Your task to perform on an android device: Show me the top rated dinnerware on Crate & Barrel Image 0: 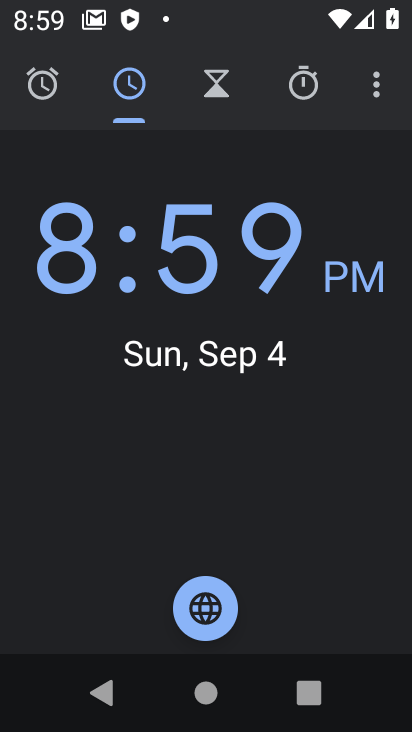
Step 0: press home button
Your task to perform on an android device: Show me the top rated dinnerware on Crate & Barrel Image 1: 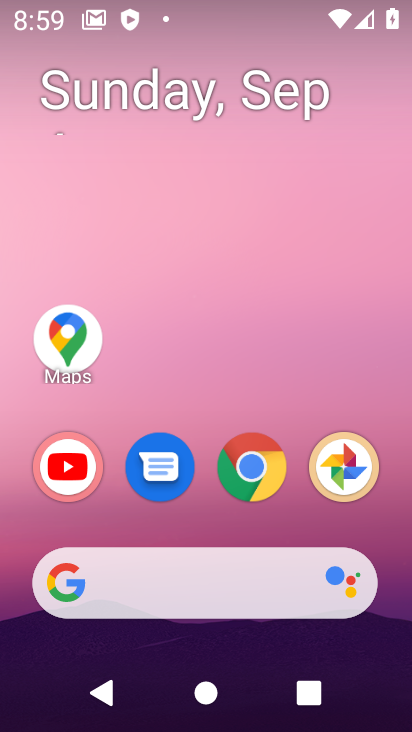
Step 1: click (237, 457)
Your task to perform on an android device: Show me the top rated dinnerware on Crate & Barrel Image 2: 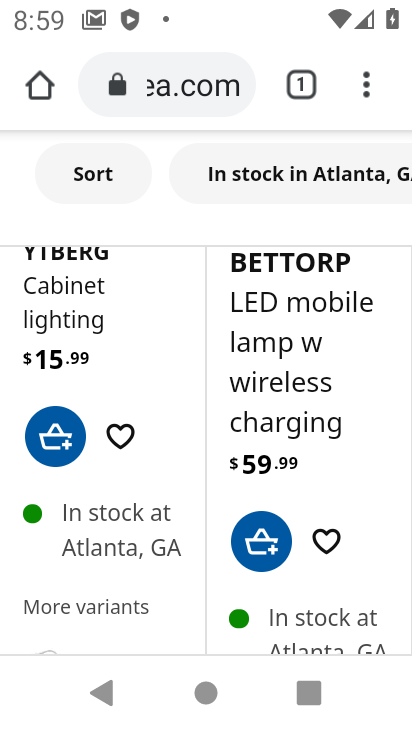
Step 2: click (188, 66)
Your task to perform on an android device: Show me the top rated dinnerware on Crate & Barrel Image 3: 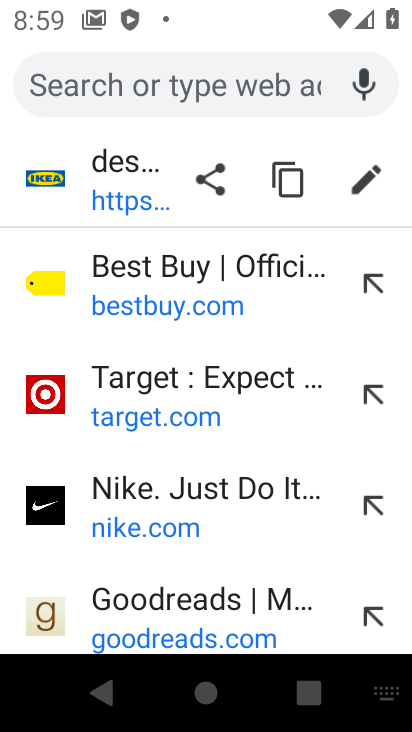
Step 3: type "crate & barrel"
Your task to perform on an android device: Show me the top rated dinnerware on Crate & Barrel Image 4: 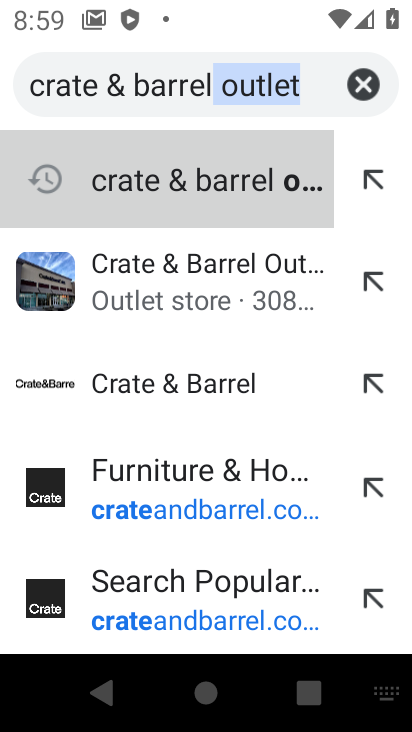
Step 4: type ""
Your task to perform on an android device: Show me the top rated dinnerware on Crate & Barrel Image 5: 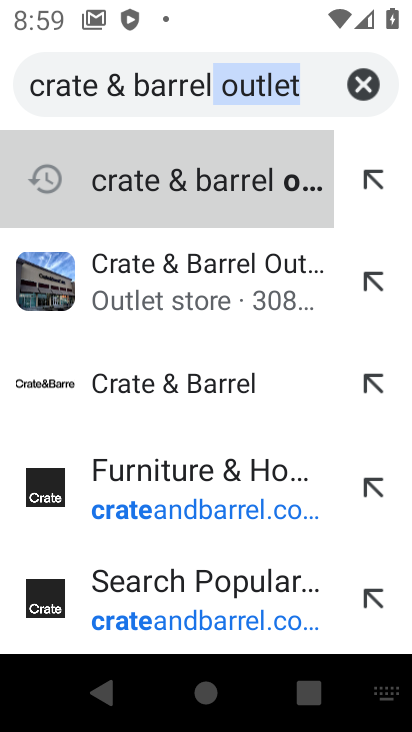
Step 5: click (183, 485)
Your task to perform on an android device: Show me the top rated dinnerware on Crate & Barrel Image 6: 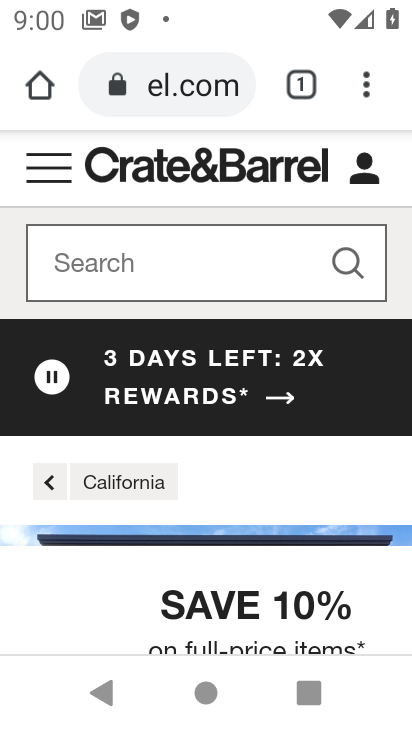
Step 6: click (150, 252)
Your task to perform on an android device: Show me the top rated dinnerware on Crate & Barrel Image 7: 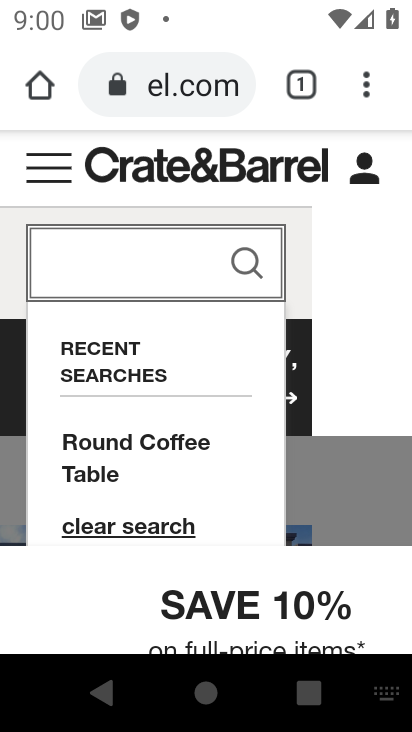
Step 7: type "dinnerware"
Your task to perform on an android device: Show me the top rated dinnerware on Crate & Barrel Image 8: 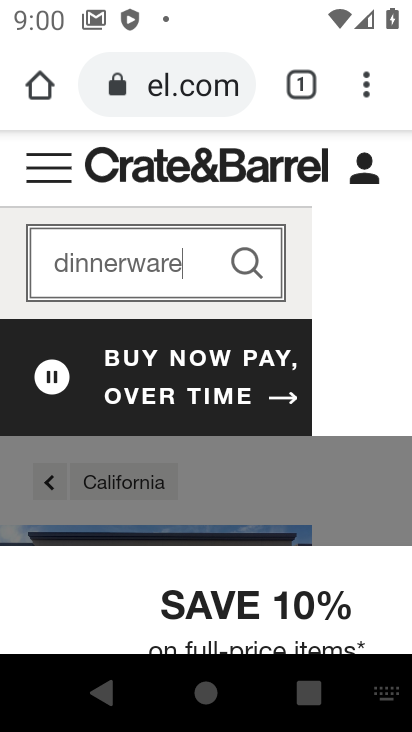
Step 8: type ""
Your task to perform on an android device: Show me the top rated dinnerware on Crate & Barrel Image 9: 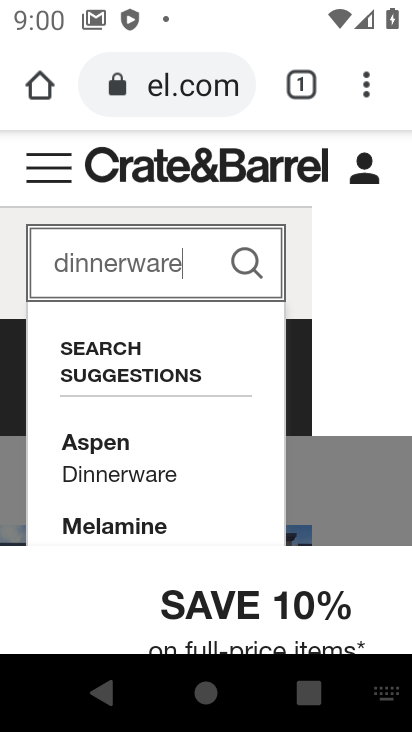
Step 9: click (126, 470)
Your task to perform on an android device: Show me the top rated dinnerware on Crate & Barrel Image 10: 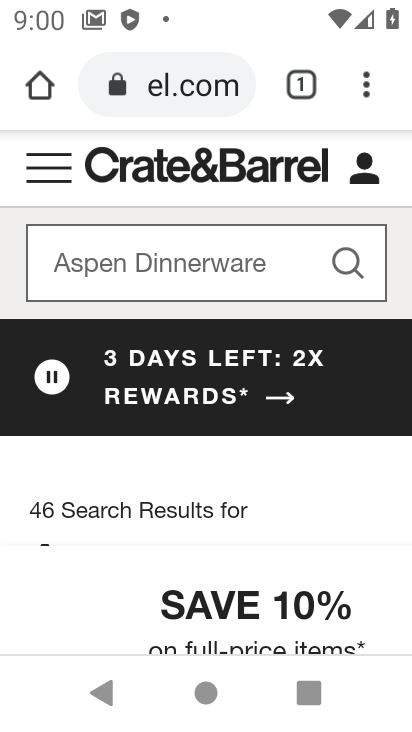
Step 10: drag from (369, 548) to (390, 283)
Your task to perform on an android device: Show me the top rated dinnerware on Crate & Barrel Image 11: 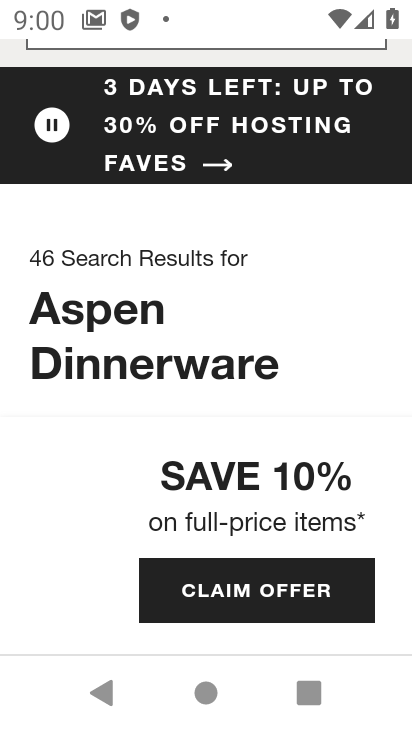
Step 11: drag from (372, 480) to (374, 75)
Your task to perform on an android device: Show me the top rated dinnerware on Crate & Barrel Image 12: 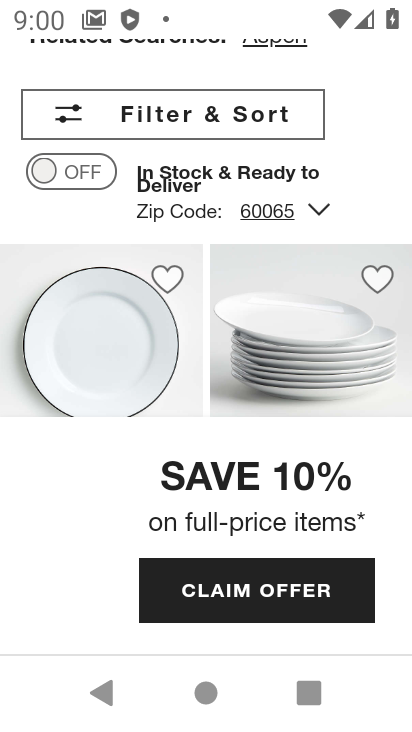
Step 12: drag from (324, 334) to (330, 176)
Your task to perform on an android device: Show me the top rated dinnerware on Crate & Barrel Image 13: 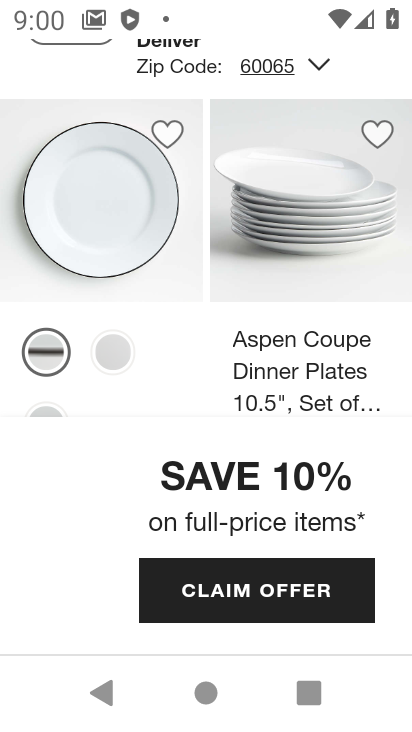
Step 13: drag from (235, 278) to (252, 38)
Your task to perform on an android device: Show me the top rated dinnerware on Crate & Barrel Image 14: 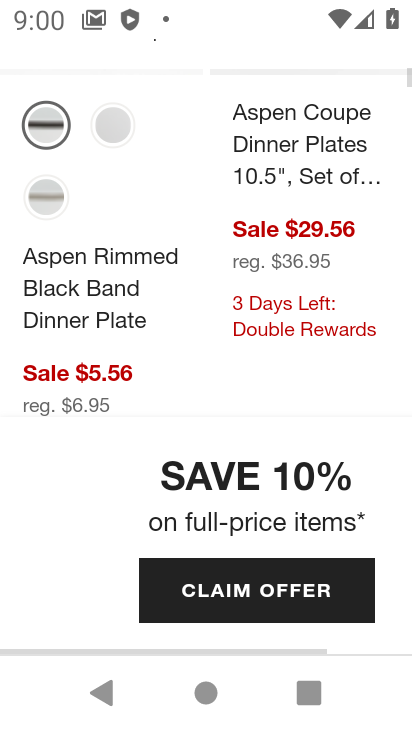
Step 14: drag from (351, 220) to (352, 68)
Your task to perform on an android device: Show me the top rated dinnerware on Crate & Barrel Image 15: 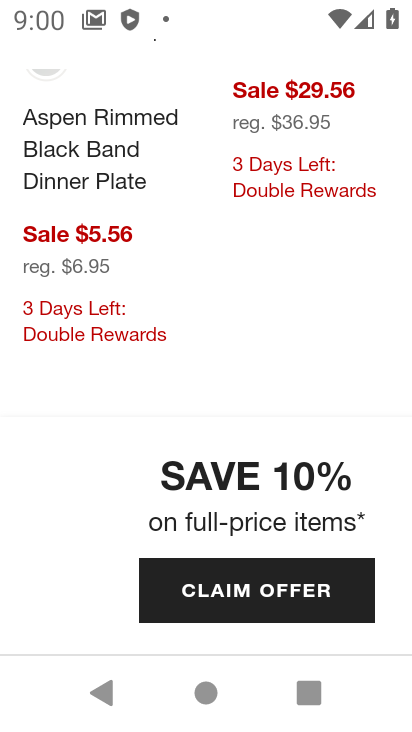
Step 15: drag from (284, 260) to (295, 87)
Your task to perform on an android device: Show me the top rated dinnerware on Crate & Barrel Image 16: 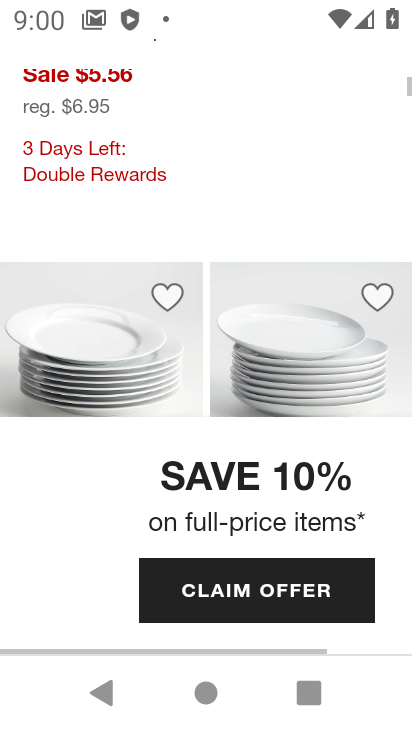
Step 16: drag from (281, 190) to (293, 40)
Your task to perform on an android device: Show me the top rated dinnerware on Crate & Barrel Image 17: 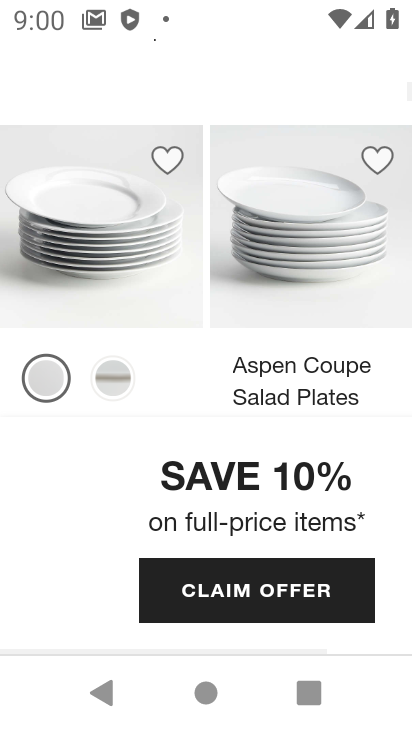
Step 17: drag from (264, 171) to (264, 89)
Your task to perform on an android device: Show me the top rated dinnerware on Crate & Barrel Image 18: 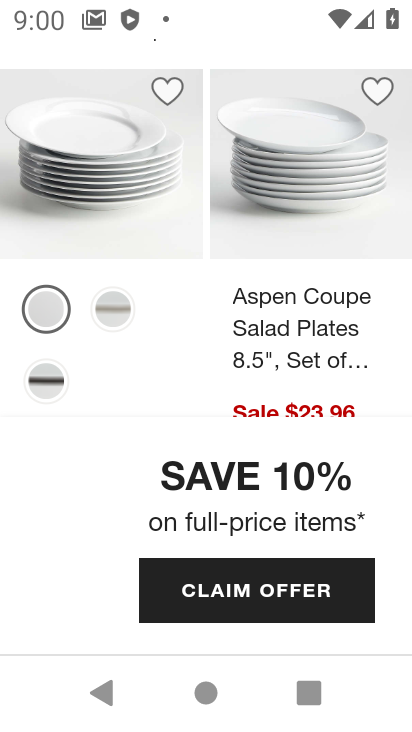
Step 18: drag from (261, 281) to (254, 110)
Your task to perform on an android device: Show me the top rated dinnerware on Crate & Barrel Image 19: 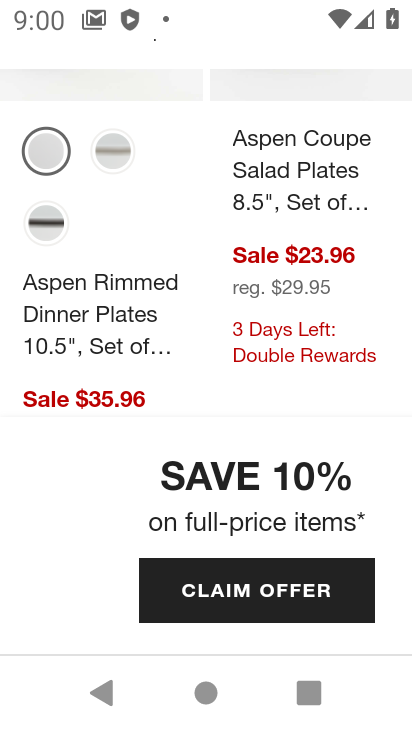
Step 19: drag from (326, 357) to (339, 56)
Your task to perform on an android device: Show me the top rated dinnerware on Crate & Barrel Image 20: 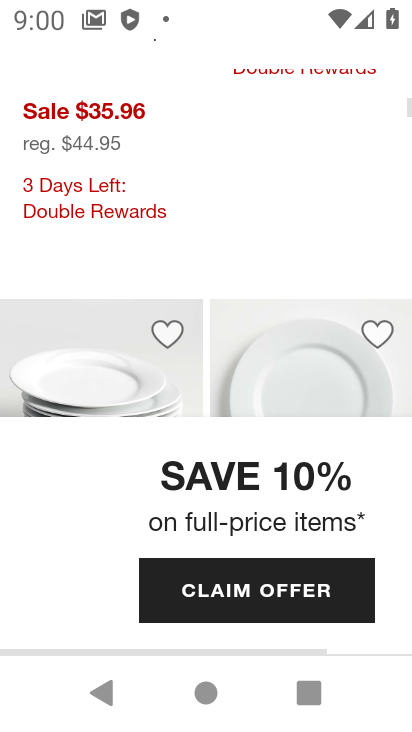
Step 20: drag from (370, 180) to (402, 544)
Your task to perform on an android device: Show me the top rated dinnerware on Crate & Barrel Image 21: 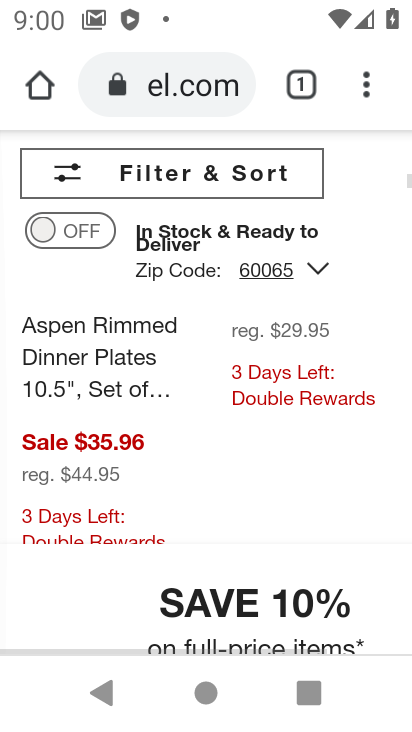
Step 21: click (387, 555)
Your task to perform on an android device: Show me the top rated dinnerware on Crate & Barrel Image 22: 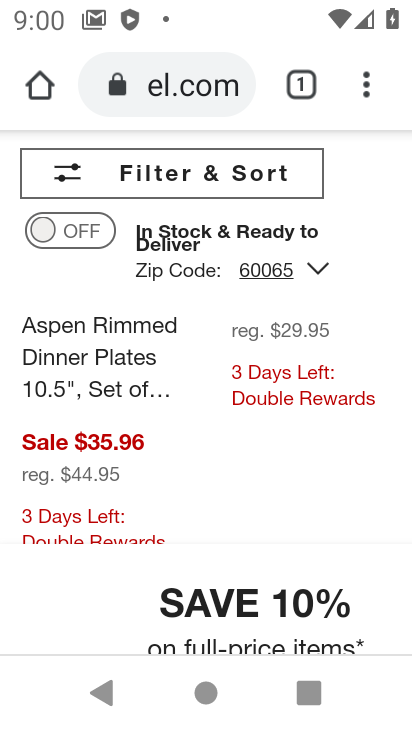
Step 22: click (152, 166)
Your task to perform on an android device: Show me the top rated dinnerware on Crate & Barrel Image 23: 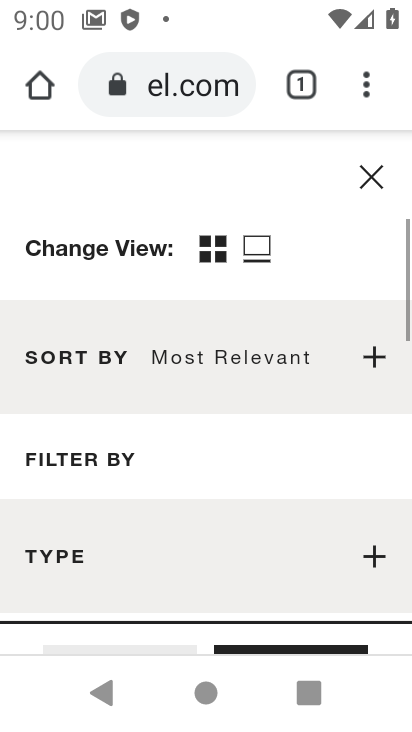
Step 23: drag from (291, 455) to (284, 200)
Your task to perform on an android device: Show me the top rated dinnerware on Crate & Barrel Image 24: 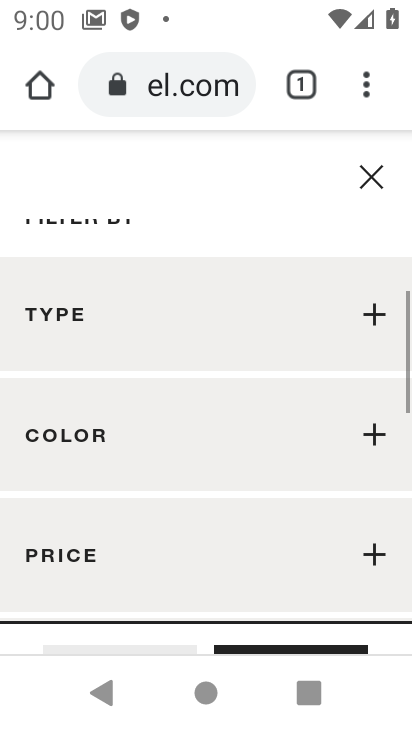
Step 24: drag from (219, 518) to (253, 165)
Your task to perform on an android device: Show me the top rated dinnerware on Crate & Barrel Image 25: 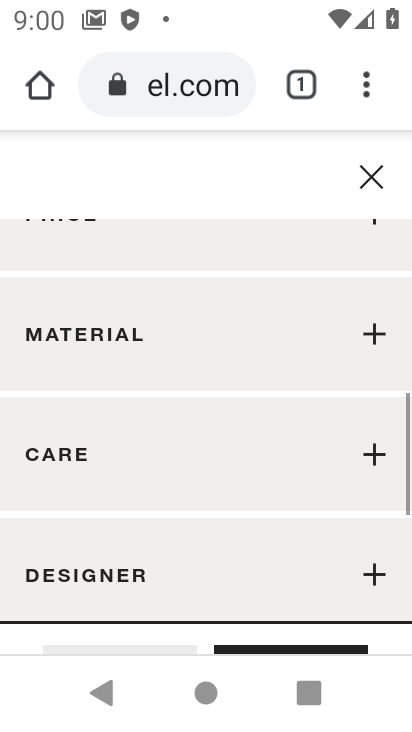
Step 25: drag from (239, 425) to (279, 195)
Your task to perform on an android device: Show me the top rated dinnerware on Crate & Barrel Image 26: 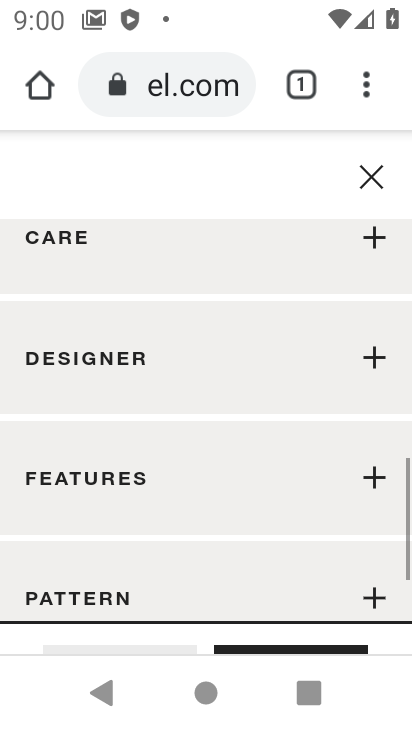
Step 26: drag from (248, 498) to (274, 278)
Your task to perform on an android device: Show me the top rated dinnerware on Crate & Barrel Image 27: 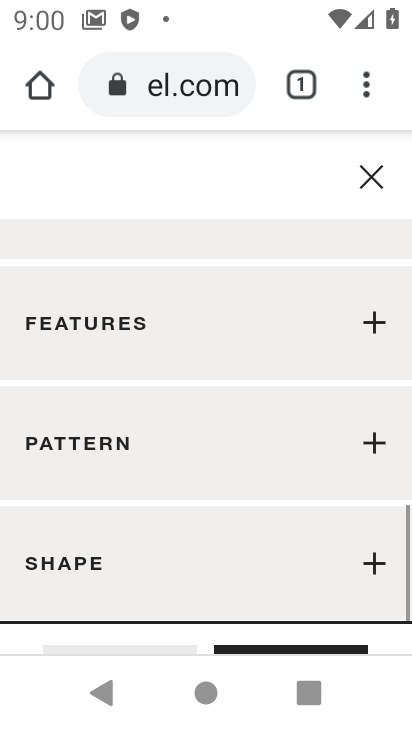
Step 27: drag from (249, 522) to (288, 307)
Your task to perform on an android device: Show me the top rated dinnerware on Crate & Barrel Image 28: 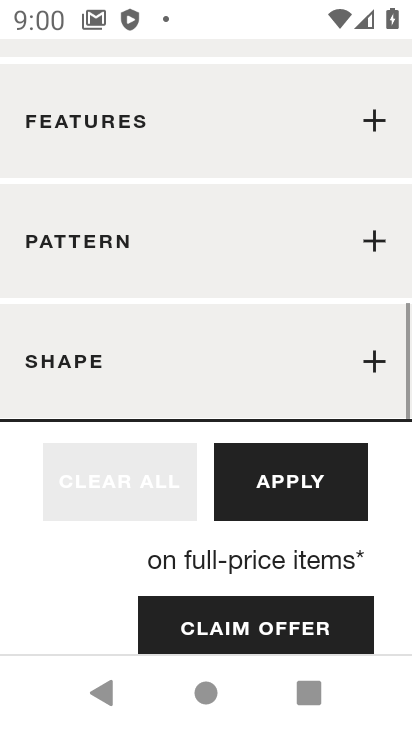
Step 28: drag from (218, 337) to (230, 95)
Your task to perform on an android device: Show me the top rated dinnerware on Crate & Barrel Image 29: 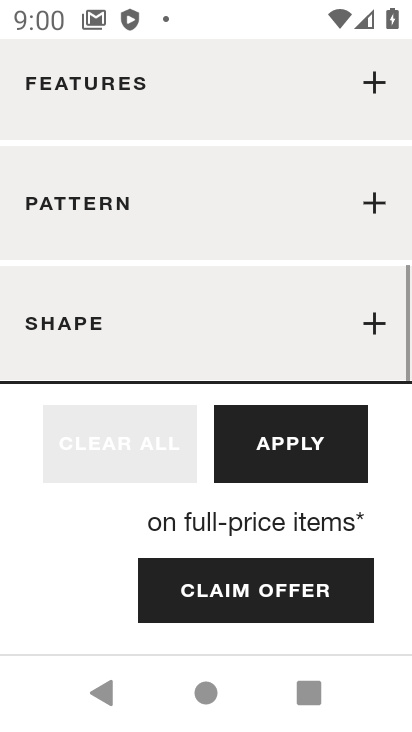
Step 29: drag from (191, 312) to (235, 97)
Your task to perform on an android device: Show me the top rated dinnerware on Crate & Barrel Image 30: 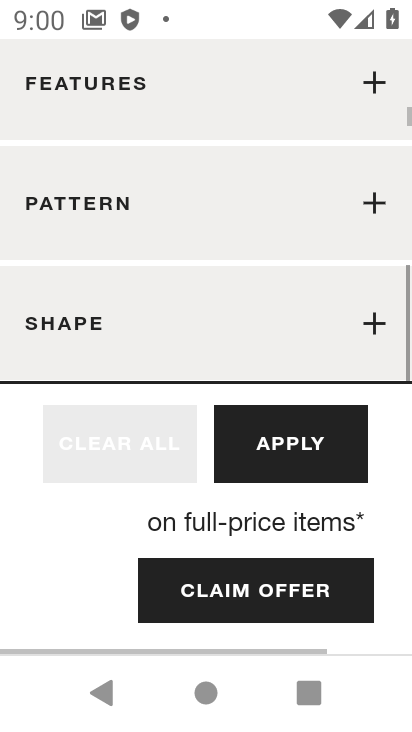
Step 30: drag from (242, 89) to (205, 501)
Your task to perform on an android device: Show me the top rated dinnerware on Crate & Barrel Image 31: 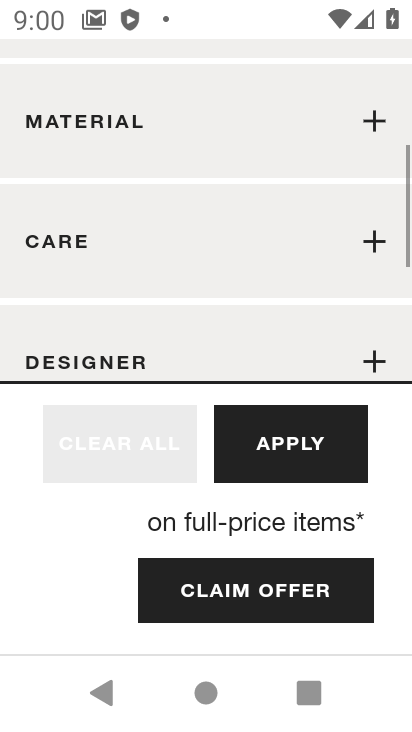
Step 31: drag from (195, 213) to (196, 436)
Your task to perform on an android device: Show me the top rated dinnerware on Crate & Barrel Image 32: 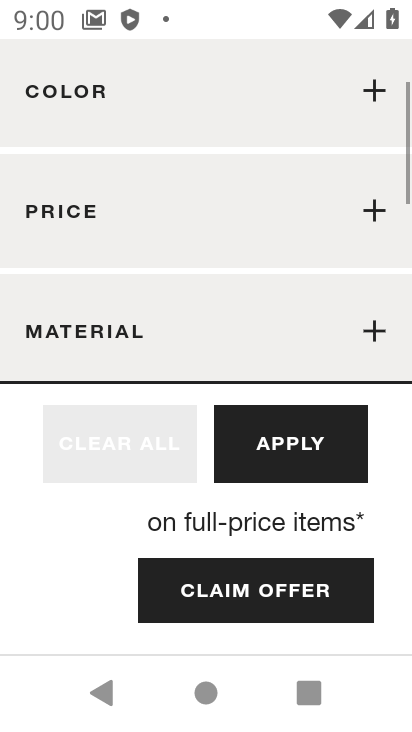
Step 32: drag from (212, 197) to (216, 386)
Your task to perform on an android device: Show me the top rated dinnerware on Crate & Barrel Image 33: 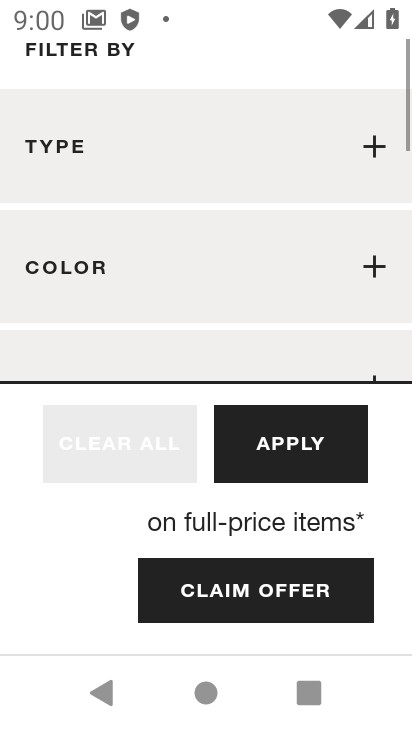
Step 33: drag from (206, 189) to (198, 424)
Your task to perform on an android device: Show me the top rated dinnerware on Crate & Barrel Image 34: 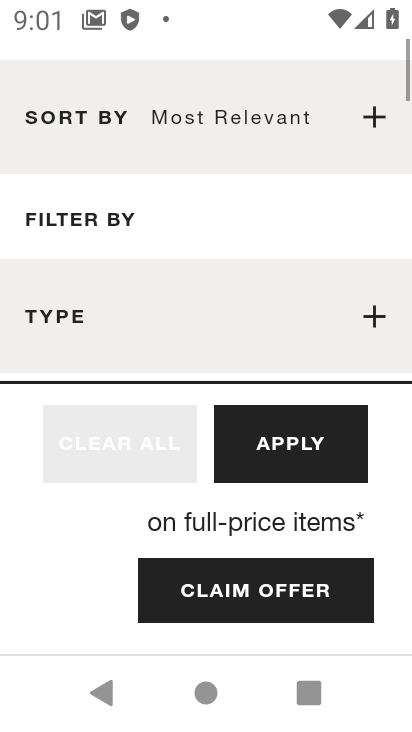
Step 34: click (367, 116)
Your task to perform on an android device: Show me the top rated dinnerware on Crate & Barrel Image 35: 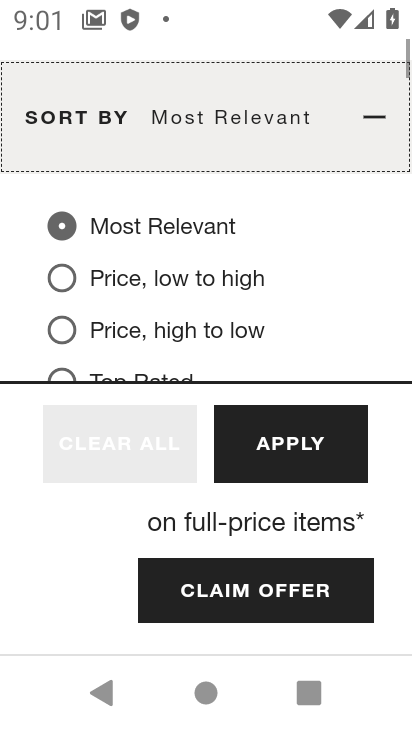
Step 35: drag from (329, 291) to (327, 218)
Your task to perform on an android device: Show me the top rated dinnerware on Crate & Barrel Image 36: 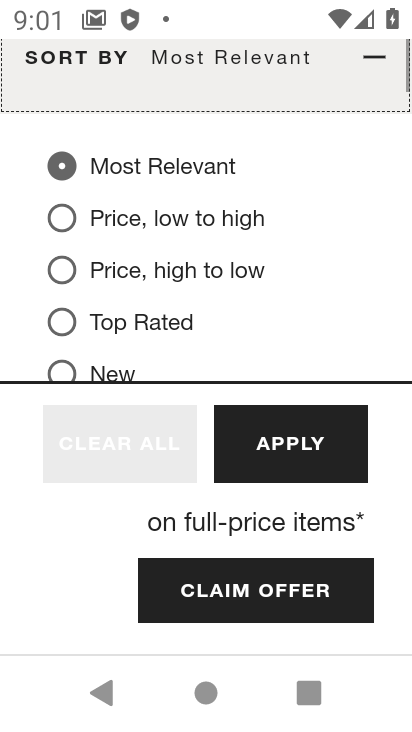
Step 36: click (67, 319)
Your task to perform on an android device: Show me the top rated dinnerware on Crate & Barrel Image 37: 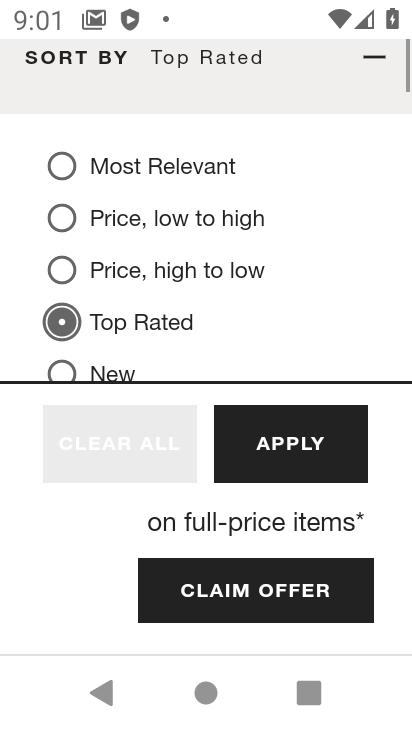
Step 37: drag from (304, 298) to (302, 218)
Your task to perform on an android device: Show me the top rated dinnerware on Crate & Barrel Image 38: 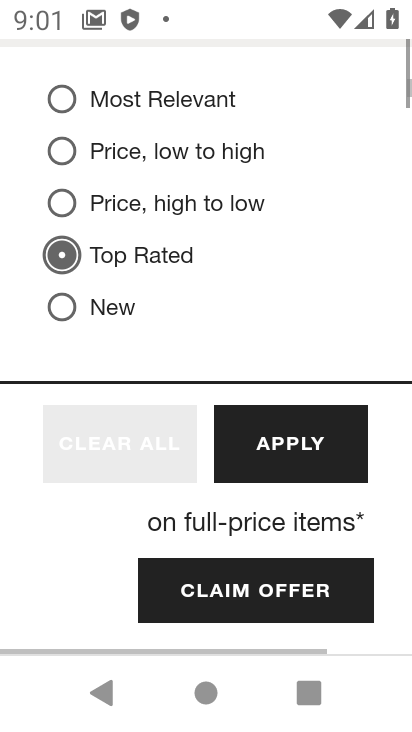
Step 38: click (297, 447)
Your task to perform on an android device: Show me the top rated dinnerware on Crate & Barrel Image 39: 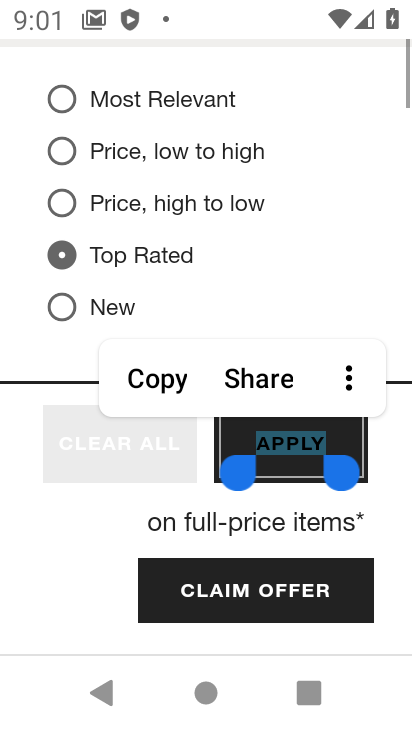
Step 39: click (280, 458)
Your task to perform on an android device: Show me the top rated dinnerware on Crate & Barrel Image 40: 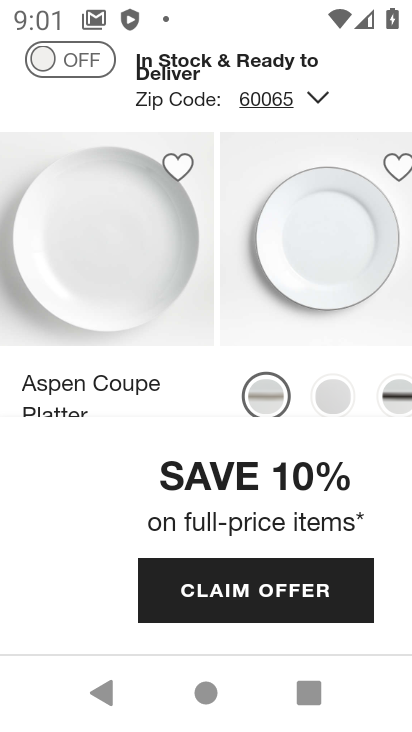
Step 40: drag from (229, 308) to (253, 119)
Your task to perform on an android device: Show me the top rated dinnerware on Crate & Barrel Image 41: 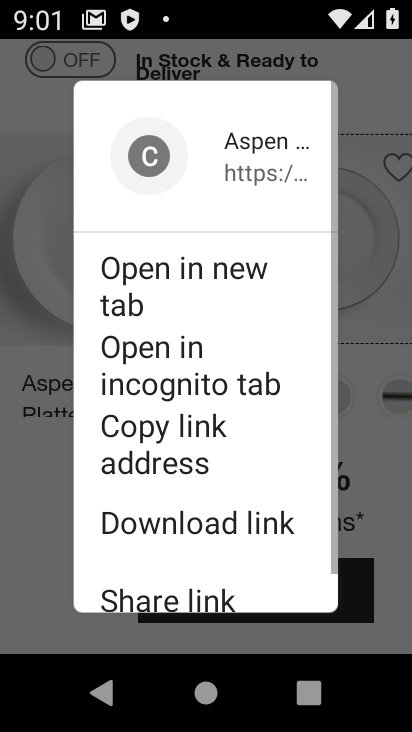
Step 41: click (410, 307)
Your task to perform on an android device: Show me the top rated dinnerware on Crate & Barrel Image 42: 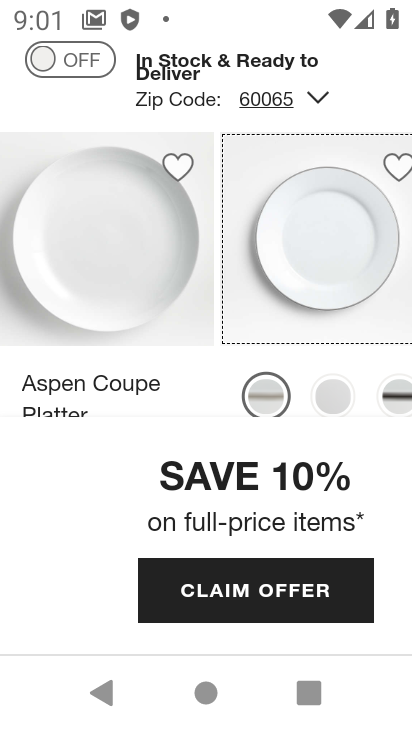
Step 42: drag from (374, 439) to (359, 120)
Your task to perform on an android device: Show me the top rated dinnerware on Crate & Barrel Image 43: 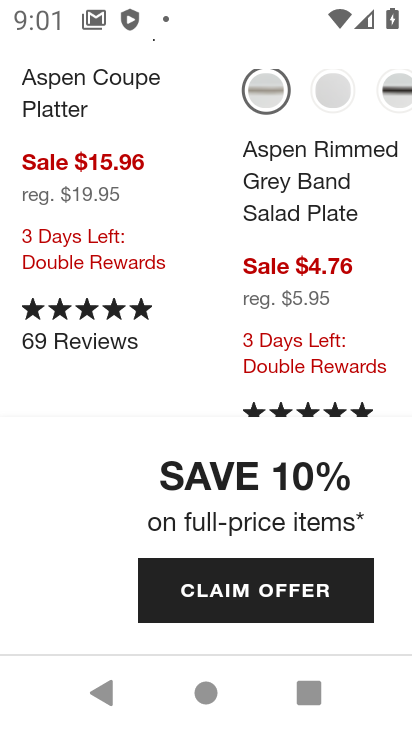
Step 43: drag from (365, 323) to (375, 179)
Your task to perform on an android device: Show me the top rated dinnerware on Crate & Barrel Image 44: 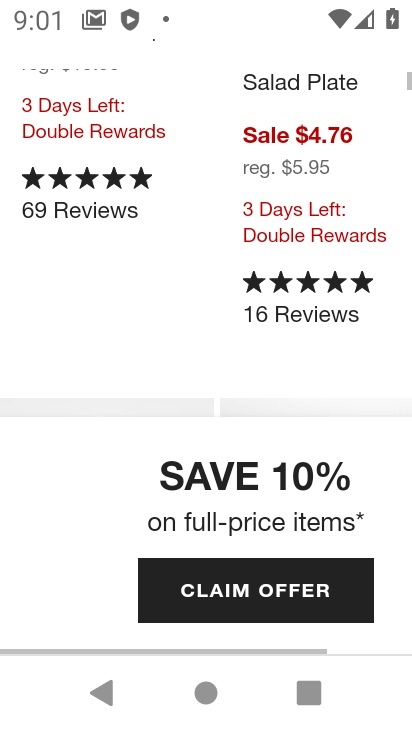
Step 44: drag from (307, 356) to (335, 145)
Your task to perform on an android device: Show me the top rated dinnerware on Crate & Barrel Image 45: 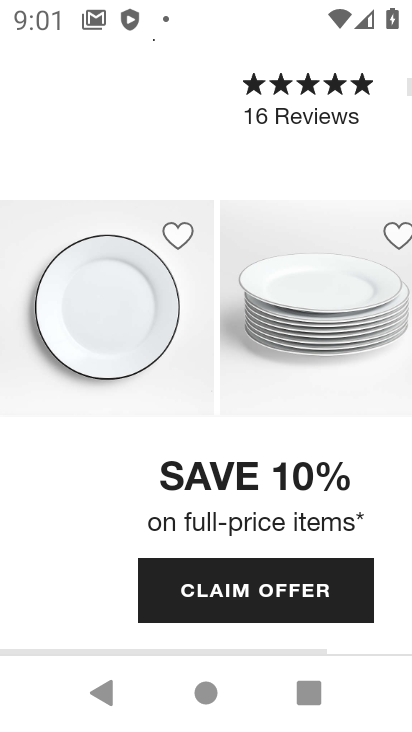
Step 45: drag from (301, 360) to (338, 121)
Your task to perform on an android device: Show me the top rated dinnerware on Crate & Barrel Image 46: 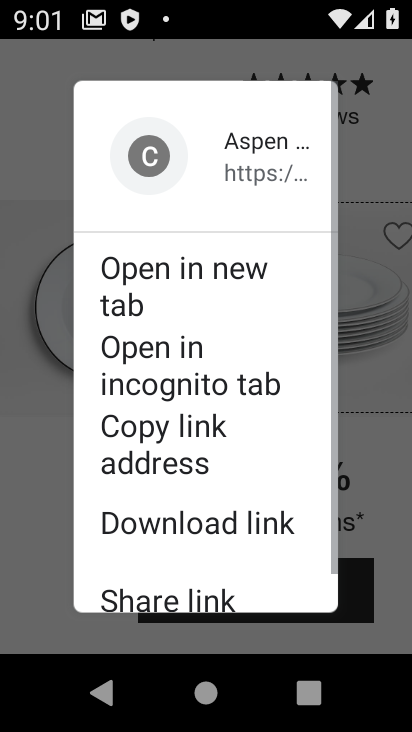
Step 46: click (381, 376)
Your task to perform on an android device: Show me the top rated dinnerware on Crate & Barrel Image 47: 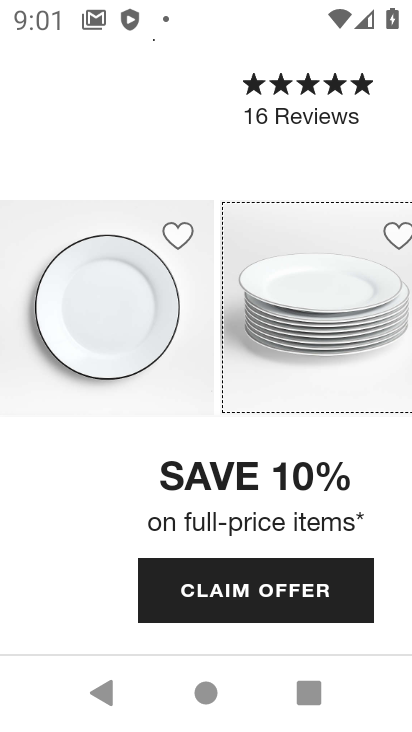
Step 47: task complete